Your task to perform on an android device: set an alarm Image 0: 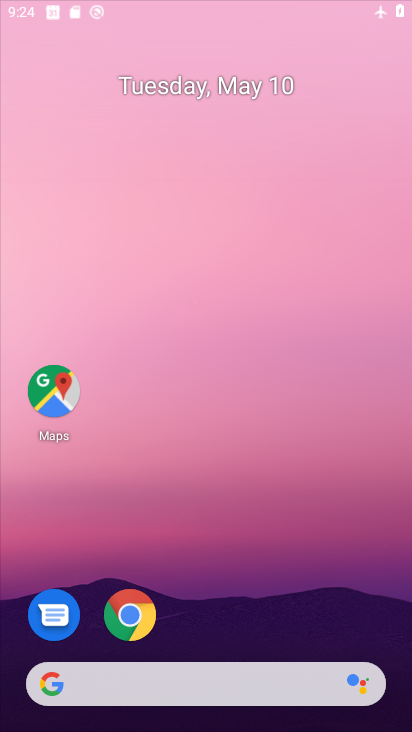
Step 0: click (231, 337)
Your task to perform on an android device: set an alarm Image 1: 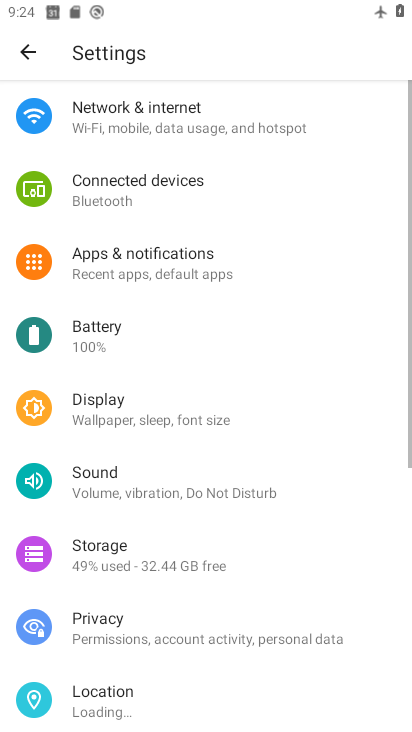
Step 1: drag from (154, 669) to (188, 396)
Your task to perform on an android device: set an alarm Image 2: 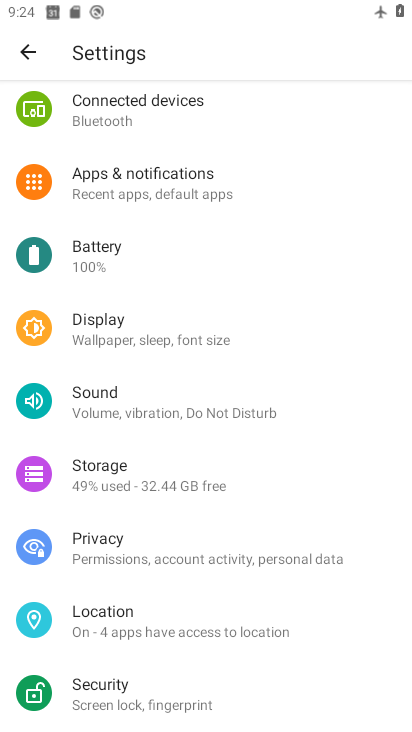
Step 2: press home button
Your task to perform on an android device: set an alarm Image 3: 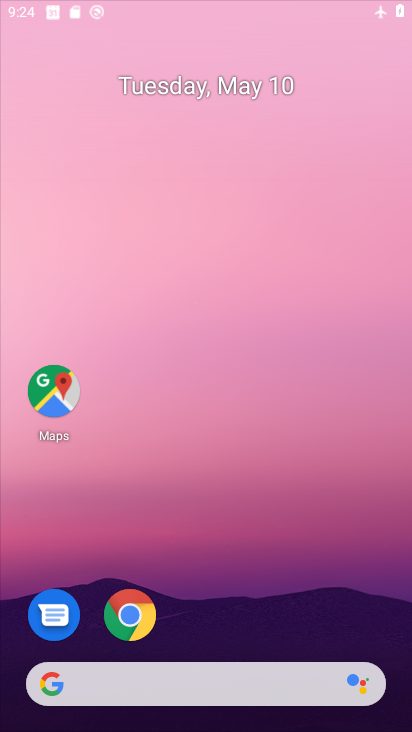
Step 3: drag from (193, 641) to (224, 353)
Your task to perform on an android device: set an alarm Image 4: 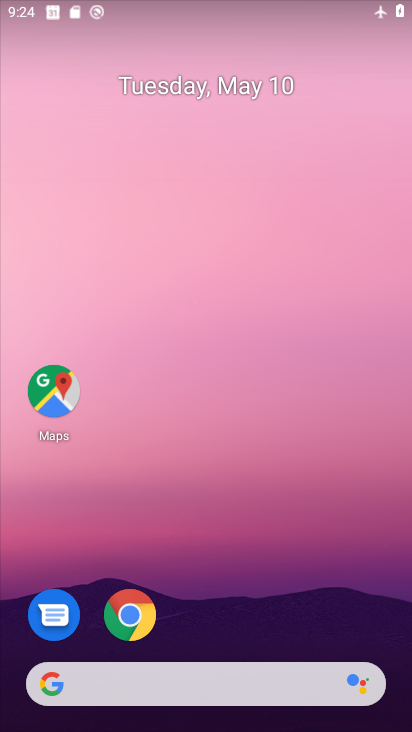
Step 4: drag from (188, 580) to (211, 303)
Your task to perform on an android device: set an alarm Image 5: 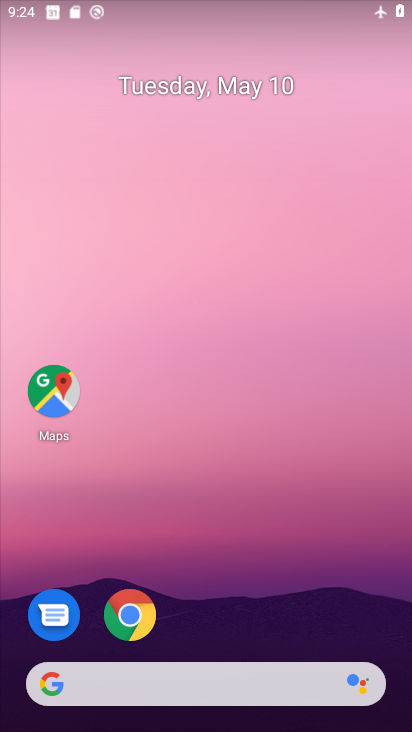
Step 5: drag from (185, 619) to (238, 157)
Your task to perform on an android device: set an alarm Image 6: 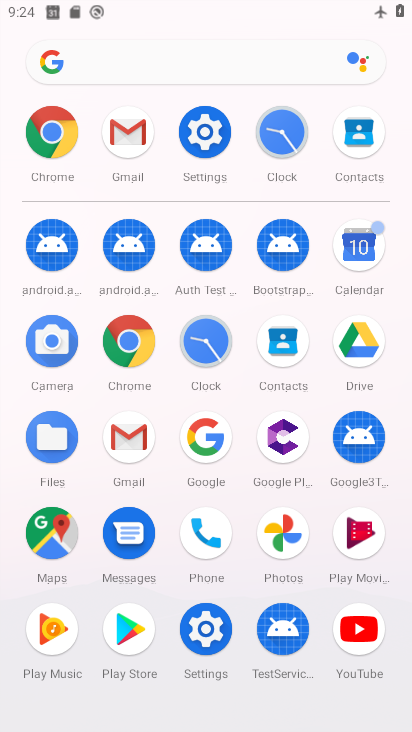
Step 6: click (196, 351)
Your task to perform on an android device: set an alarm Image 7: 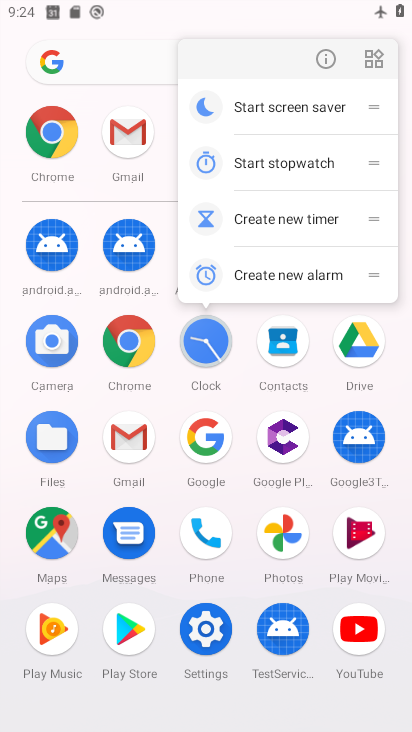
Step 7: click (322, 50)
Your task to perform on an android device: set an alarm Image 8: 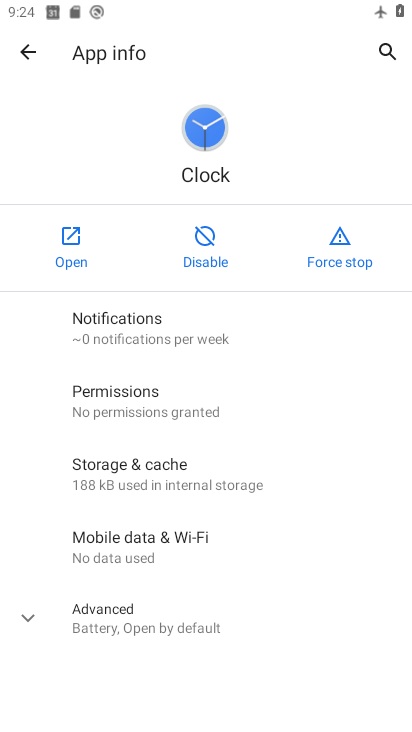
Step 8: click (81, 241)
Your task to perform on an android device: set an alarm Image 9: 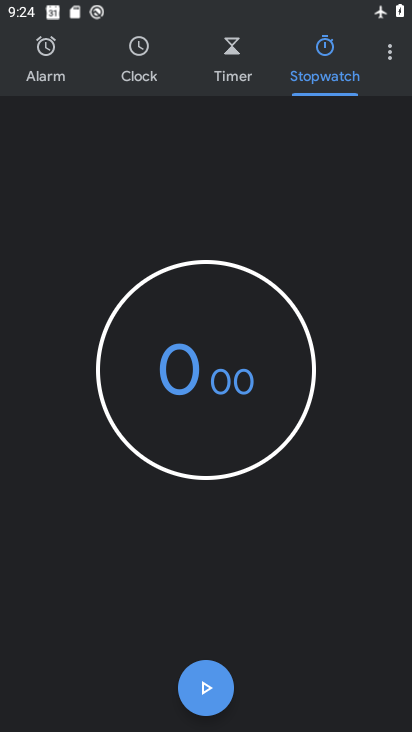
Step 9: click (44, 65)
Your task to perform on an android device: set an alarm Image 10: 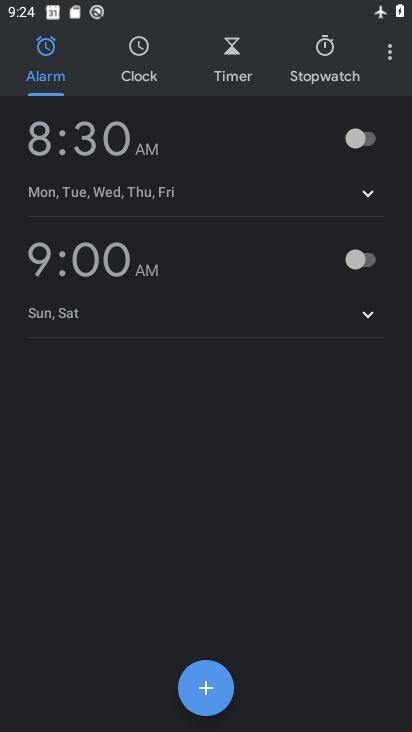
Step 10: task complete